Your task to perform on an android device: turn on the 12-hour format for clock Image 0: 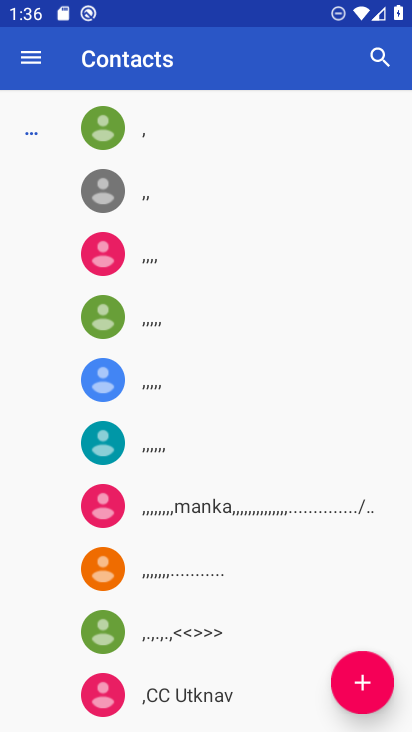
Step 0: press home button
Your task to perform on an android device: turn on the 12-hour format for clock Image 1: 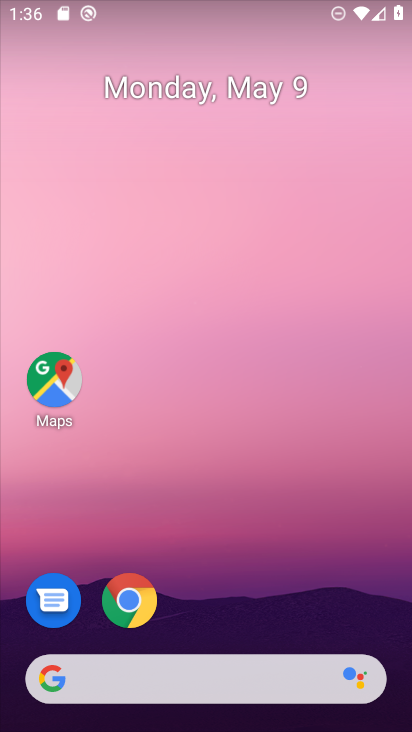
Step 1: drag from (163, 678) to (328, 177)
Your task to perform on an android device: turn on the 12-hour format for clock Image 2: 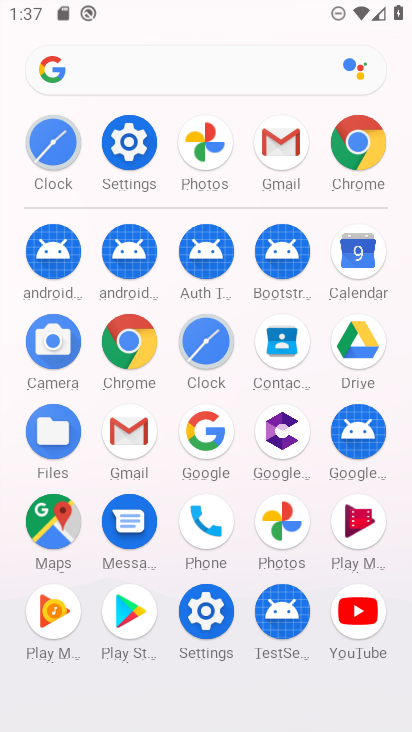
Step 2: click (216, 345)
Your task to perform on an android device: turn on the 12-hour format for clock Image 3: 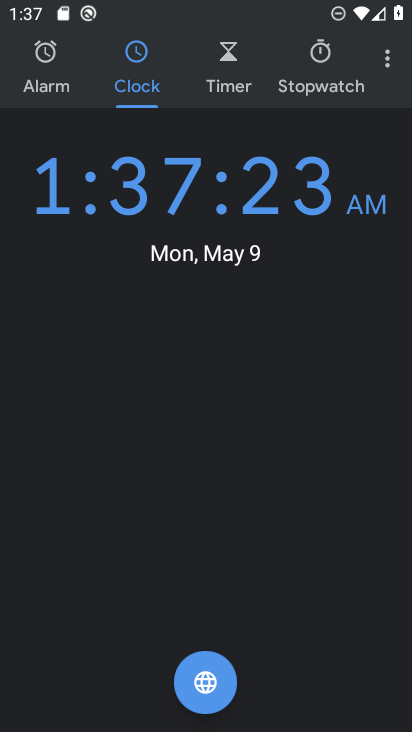
Step 3: click (389, 68)
Your task to perform on an android device: turn on the 12-hour format for clock Image 4: 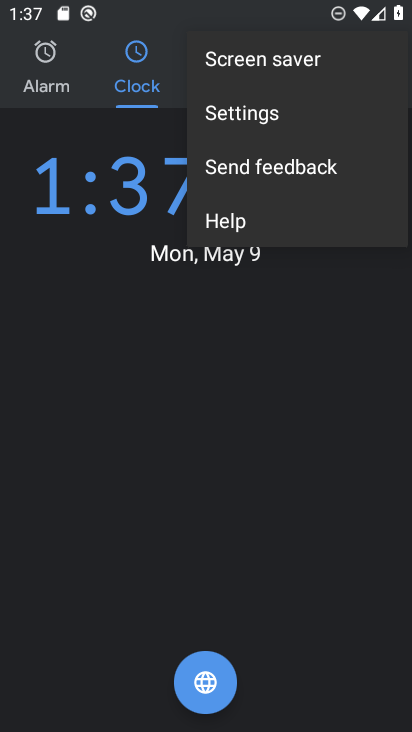
Step 4: click (264, 118)
Your task to perform on an android device: turn on the 12-hour format for clock Image 5: 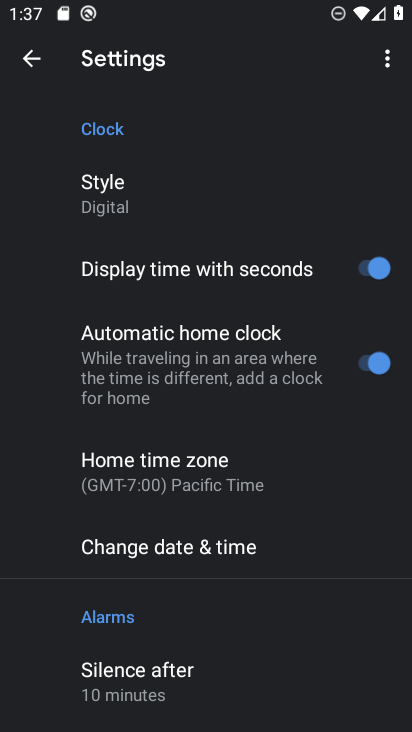
Step 5: click (202, 549)
Your task to perform on an android device: turn on the 12-hour format for clock Image 6: 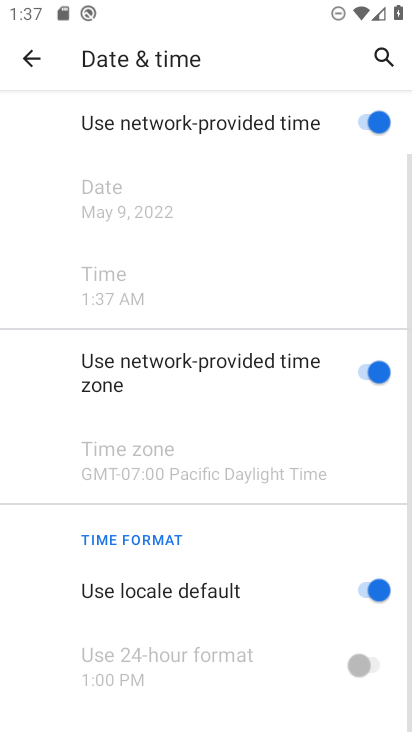
Step 6: task complete